Your task to perform on an android device: Show the shopping cart on ebay.com. Image 0: 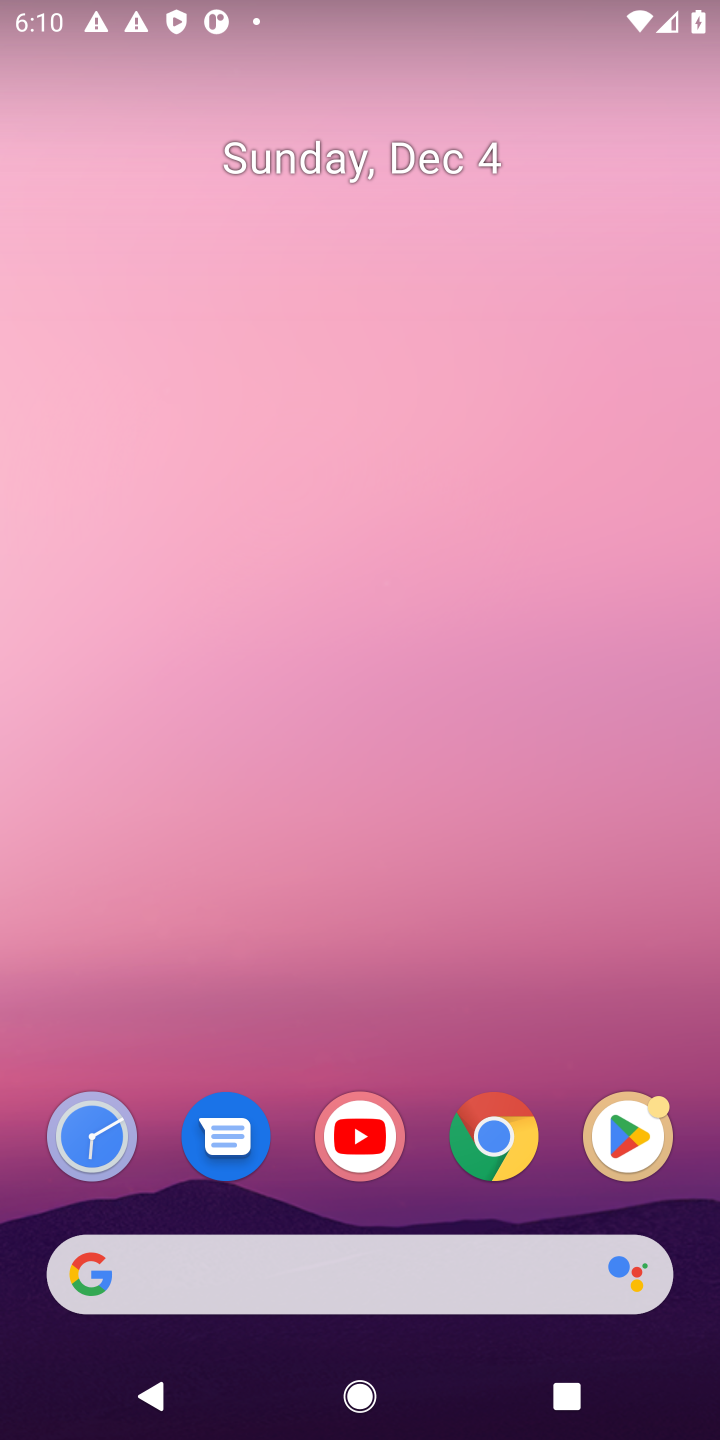
Step 0: click (468, 1147)
Your task to perform on an android device: Show the shopping cart on ebay.com. Image 1: 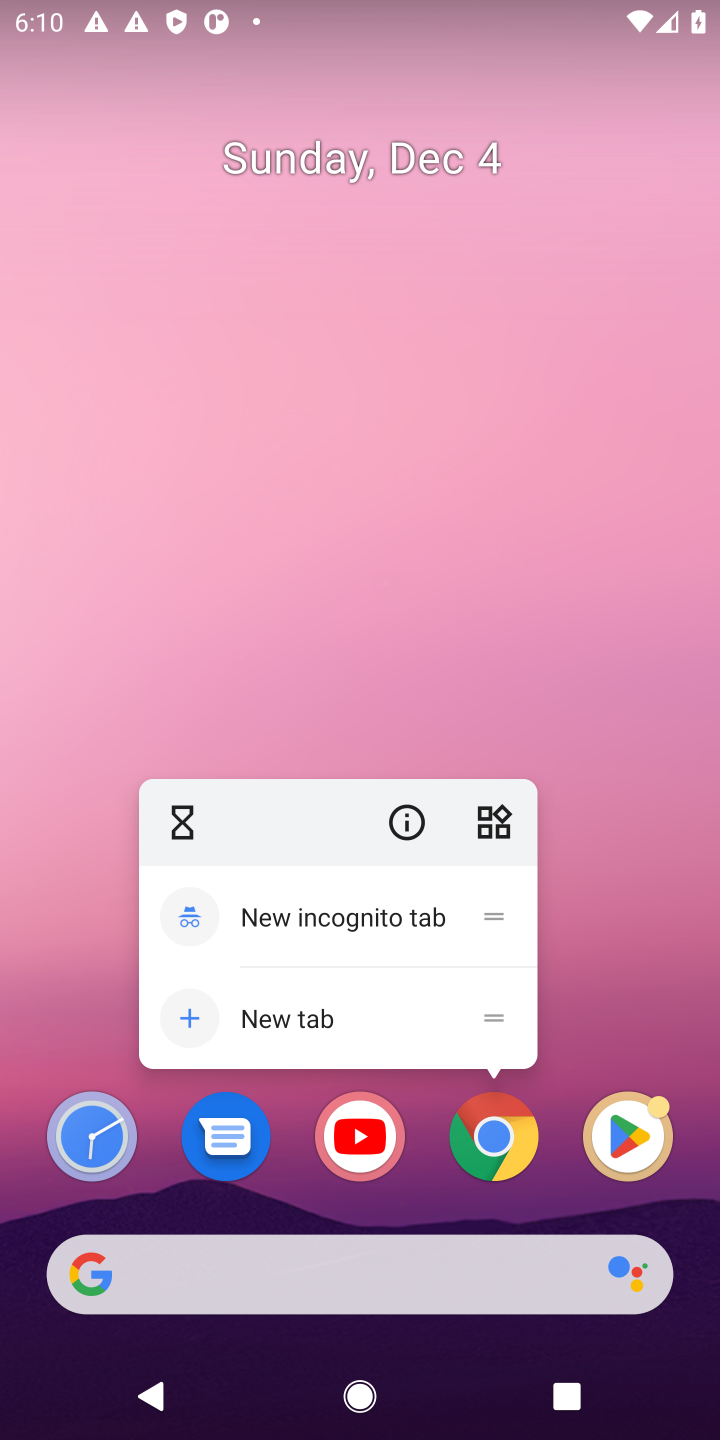
Step 1: click (500, 1165)
Your task to perform on an android device: Show the shopping cart on ebay.com. Image 2: 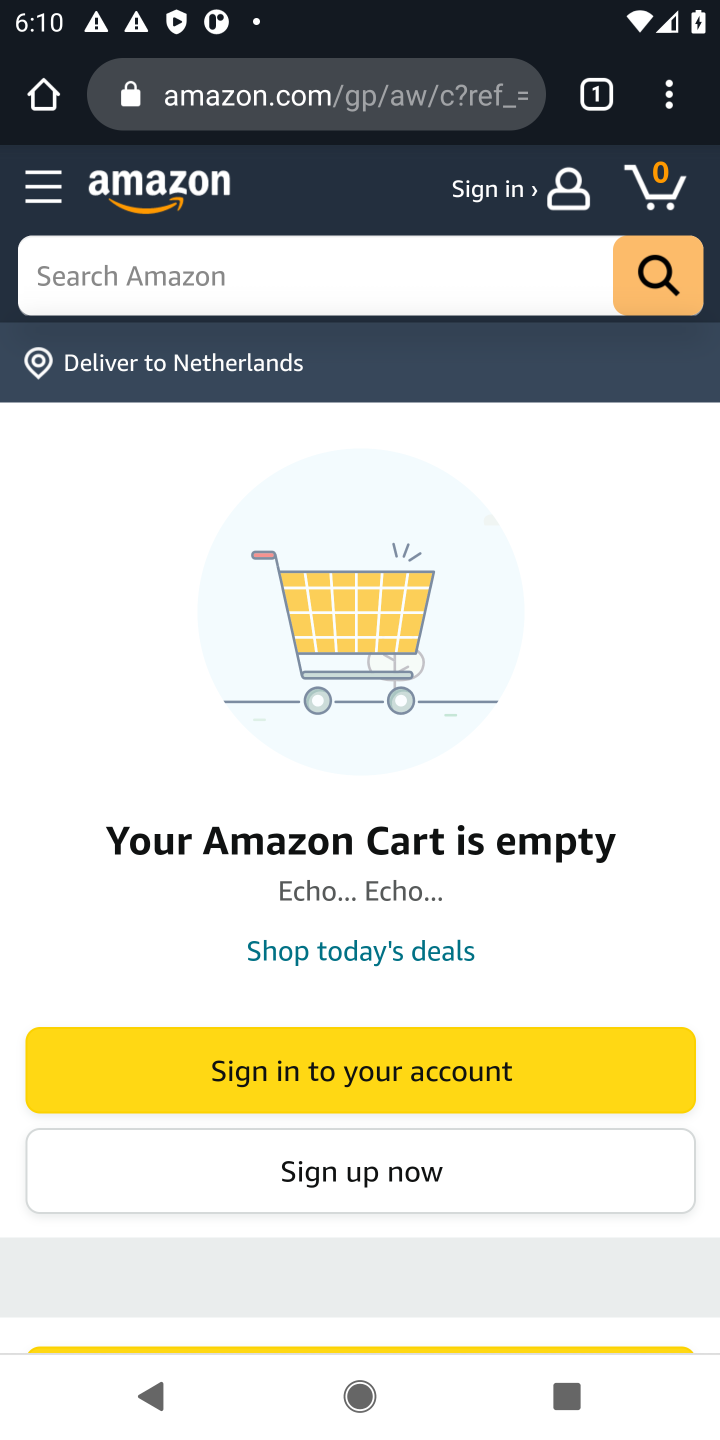
Step 2: click (310, 99)
Your task to perform on an android device: Show the shopping cart on ebay.com. Image 3: 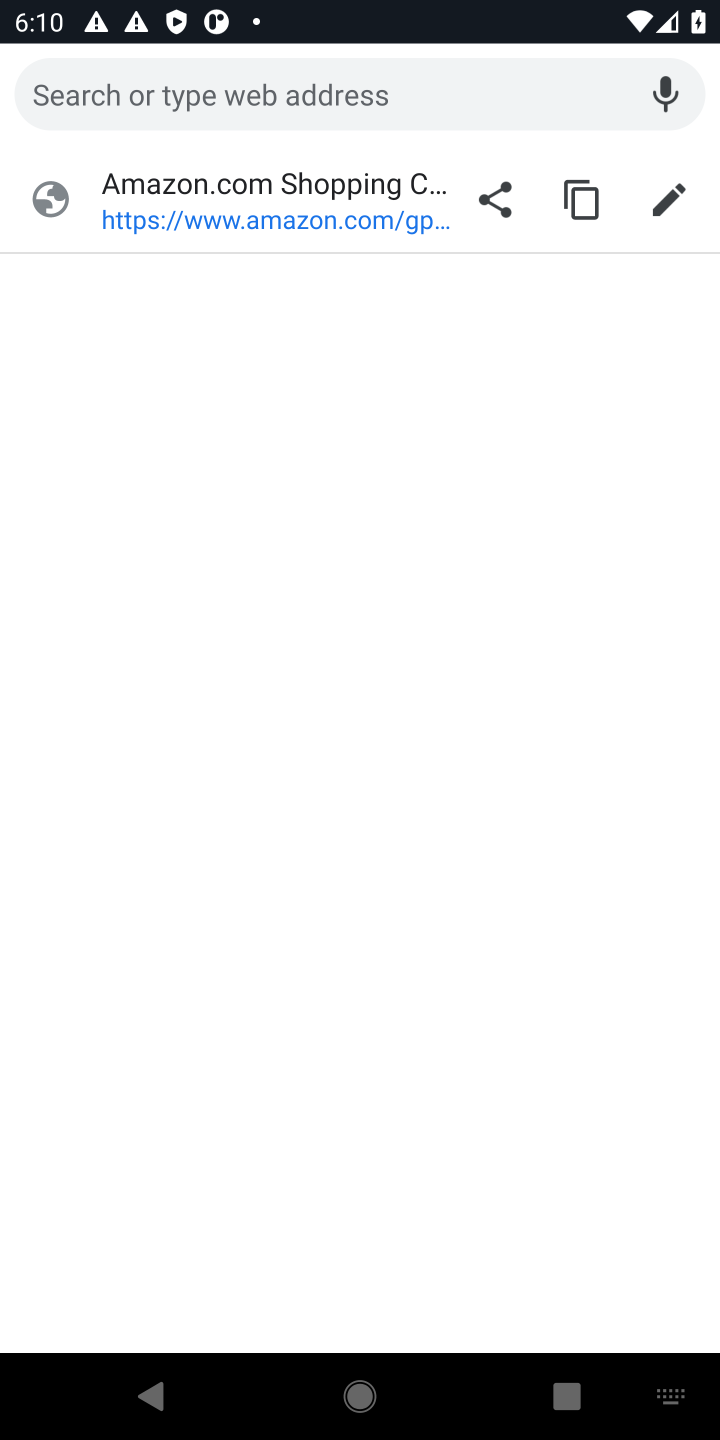
Step 3: type "ebay.com"
Your task to perform on an android device: Show the shopping cart on ebay.com. Image 4: 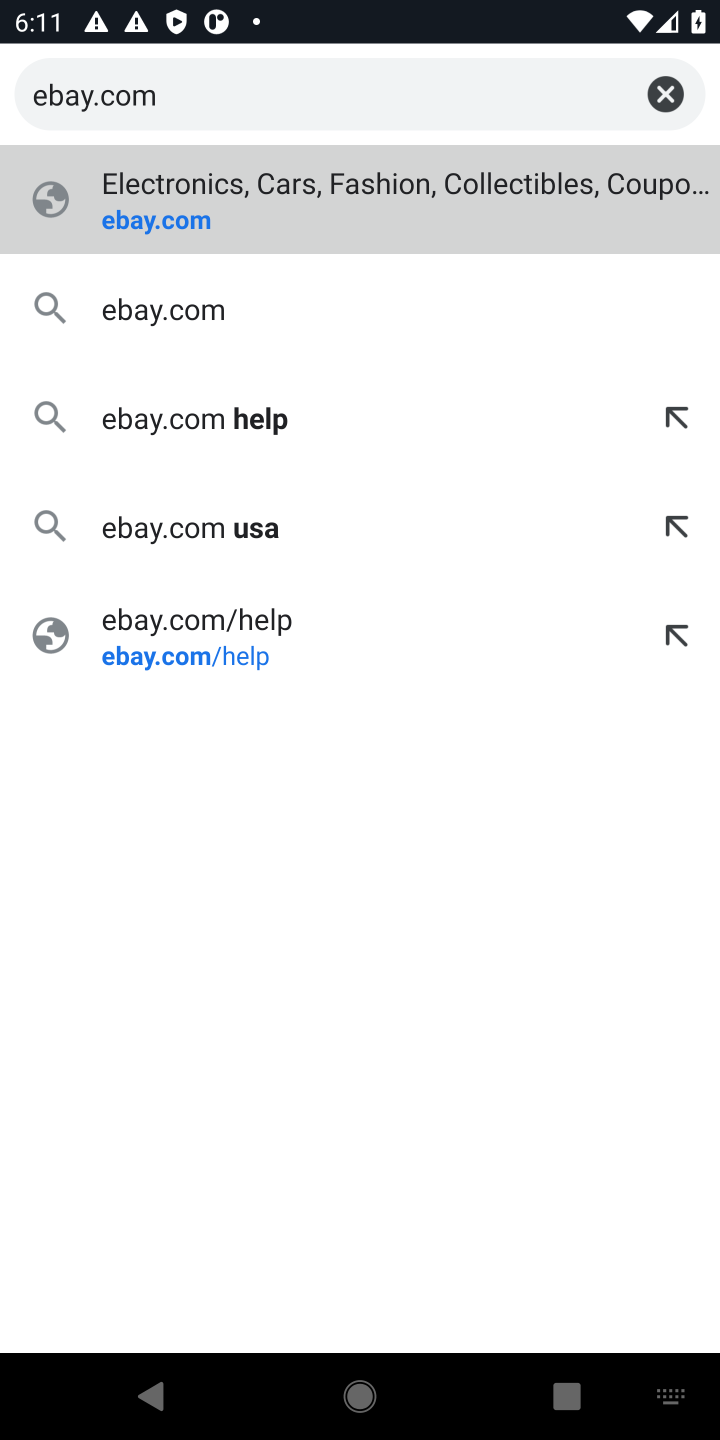
Step 4: click (155, 225)
Your task to perform on an android device: Show the shopping cart on ebay.com. Image 5: 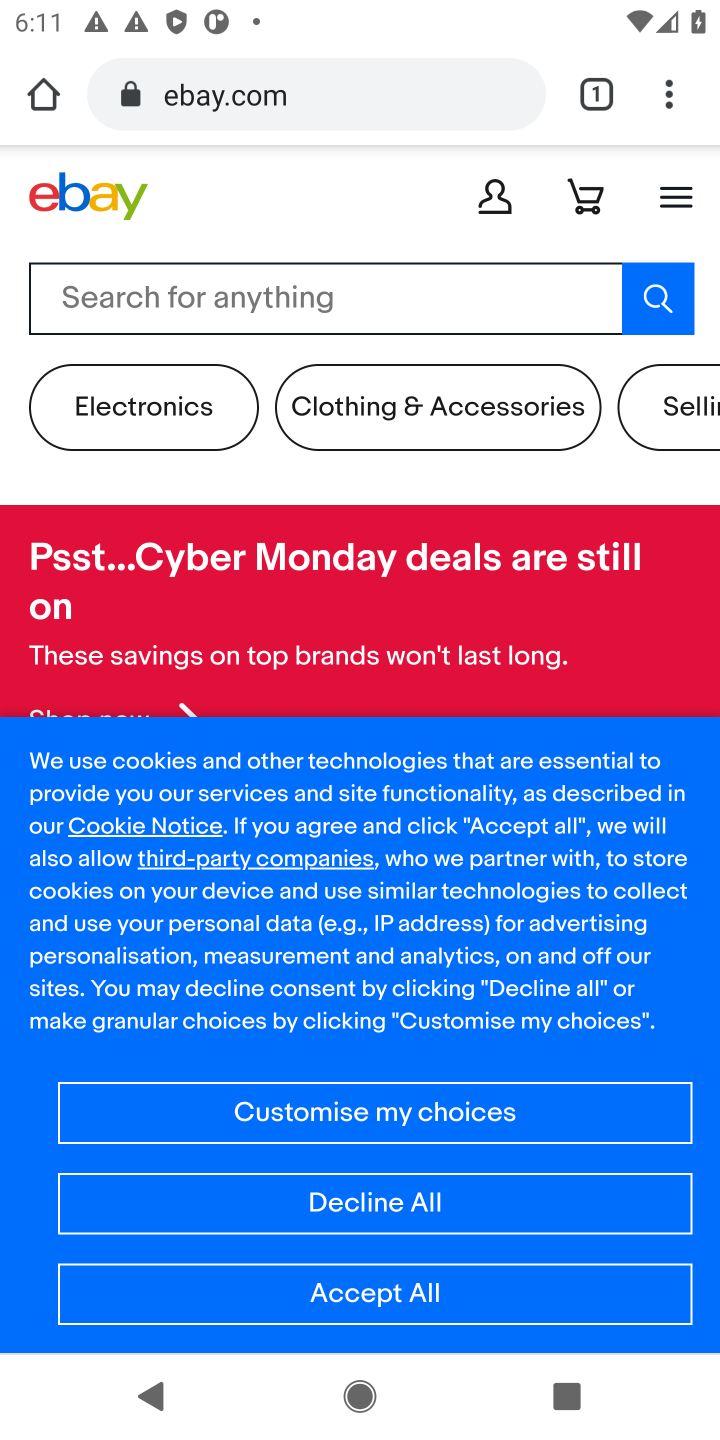
Step 5: click (592, 209)
Your task to perform on an android device: Show the shopping cart on ebay.com. Image 6: 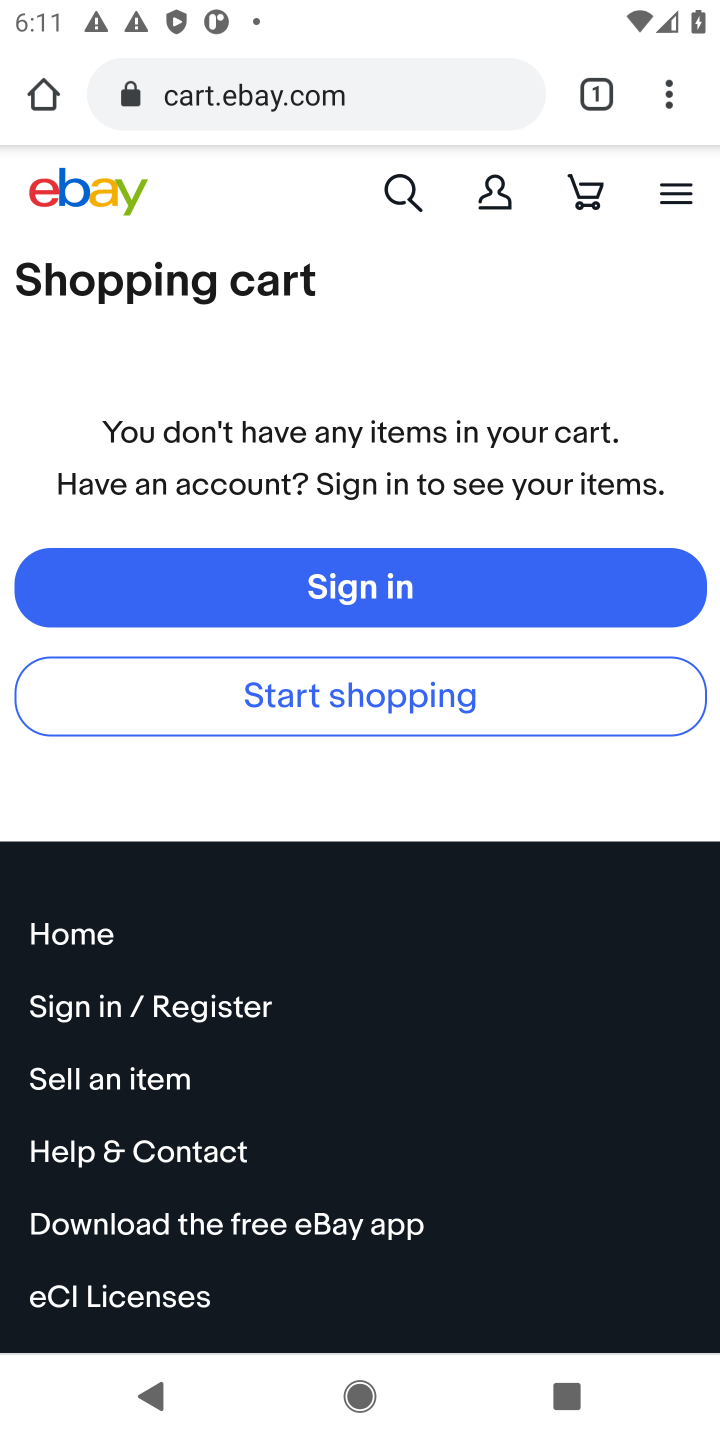
Step 6: task complete